Your task to perform on an android device: Open Chrome and go to settings Image 0: 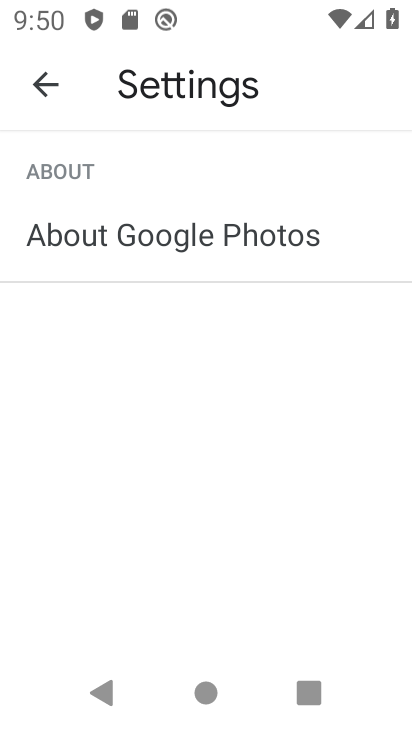
Step 0: press home button
Your task to perform on an android device: Open Chrome and go to settings Image 1: 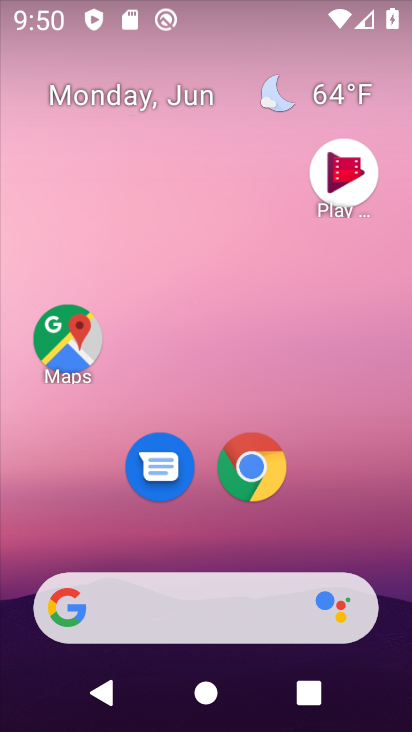
Step 1: click (248, 489)
Your task to perform on an android device: Open Chrome and go to settings Image 2: 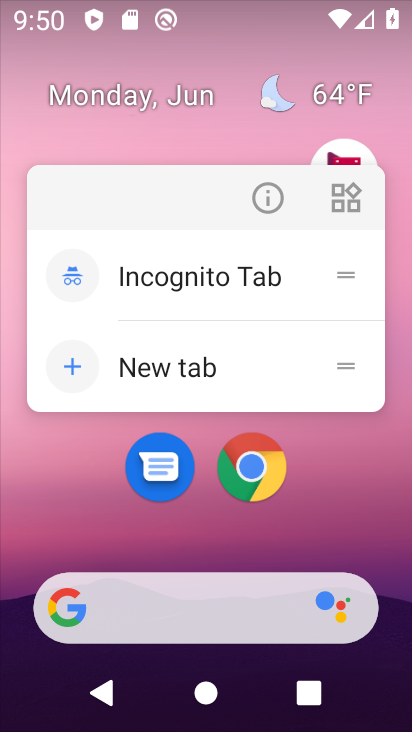
Step 2: click (254, 480)
Your task to perform on an android device: Open Chrome and go to settings Image 3: 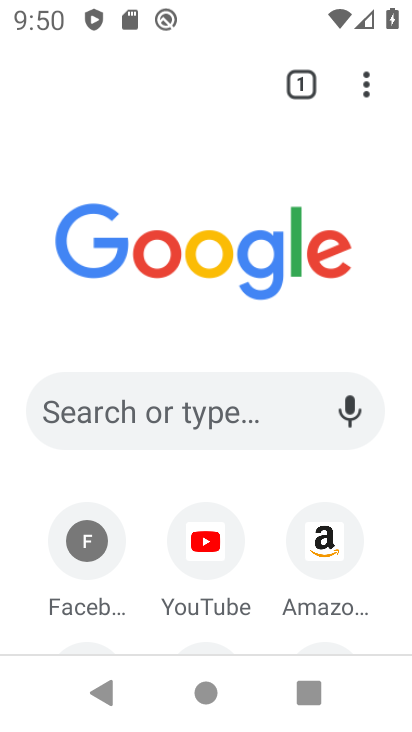
Step 3: task complete